Your task to perform on an android device: open app "Adobe Acrobat Reader" (install if not already installed) and go to login screen Image 0: 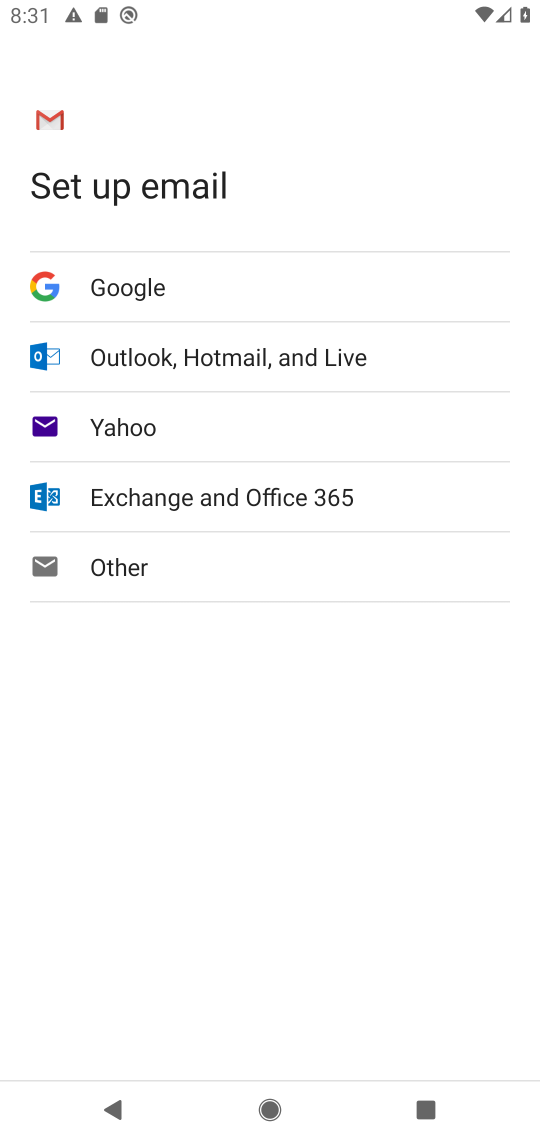
Step 0: press home button
Your task to perform on an android device: open app "Adobe Acrobat Reader" (install if not already installed) and go to login screen Image 1: 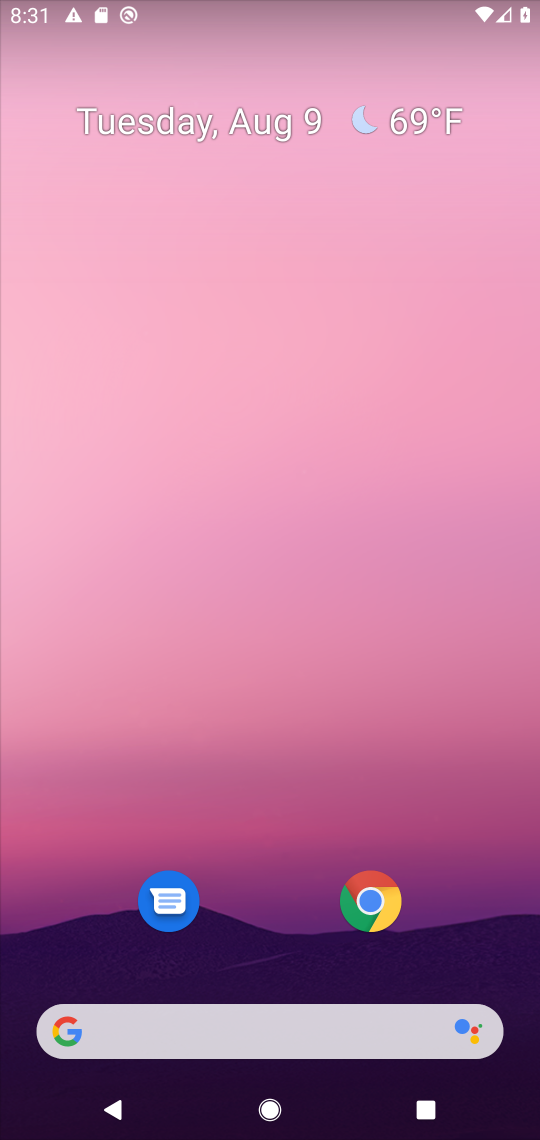
Step 1: drag from (283, 961) to (338, 142)
Your task to perform on an android device: open app "Adobe Acrobat Reader" (install if not already installed) and go to login screen Image 2: 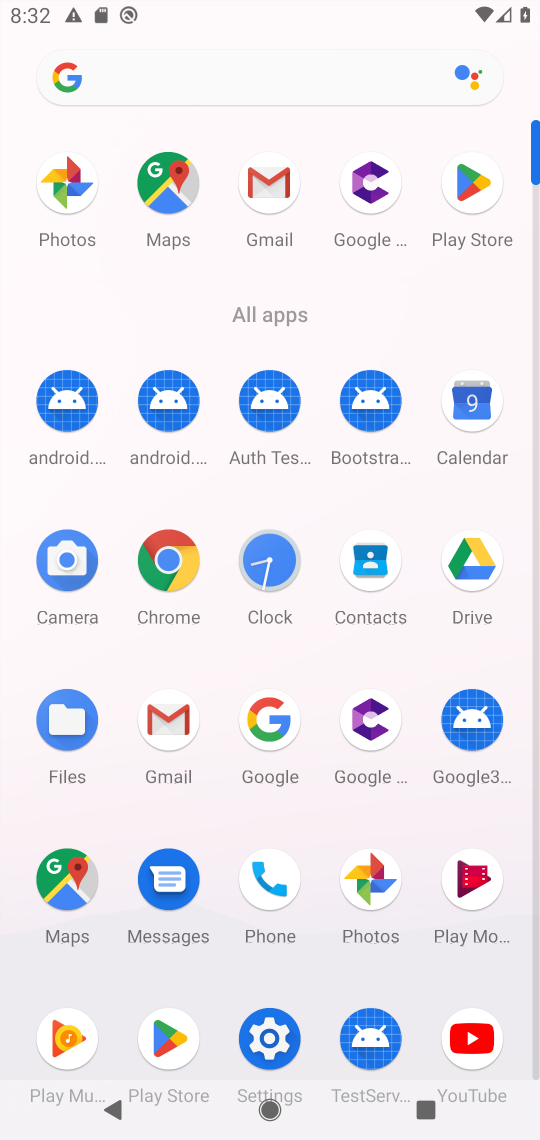
Step 2: click (168, 1032)
Your task to perform on an android device: open app "Adobe Acrobat Reader" (install if not already installed) and go to login screen Image 3: 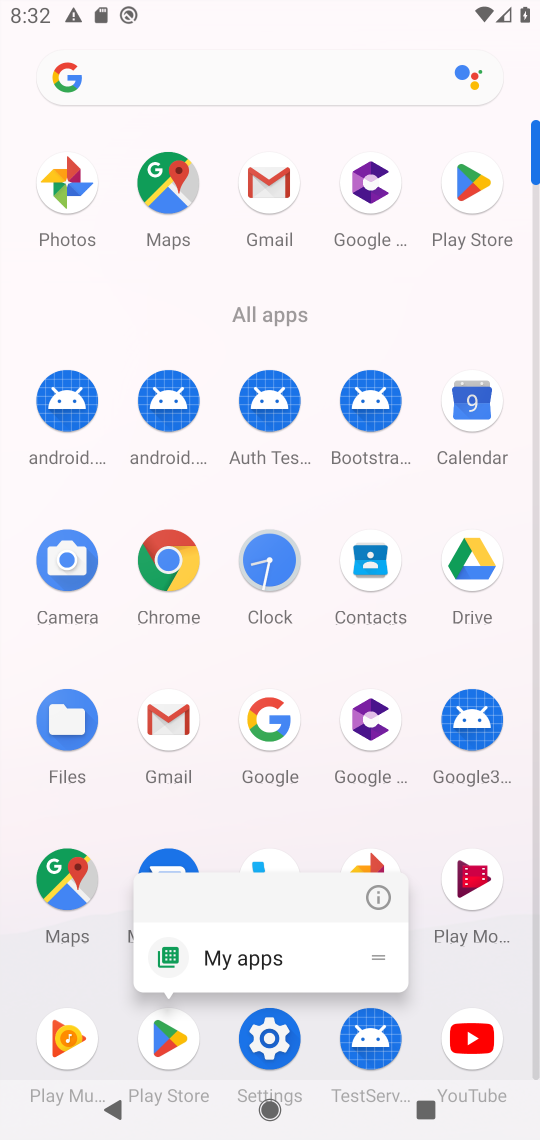
Step 3: click (168, 1032)
Your task to perform on an android device: open app "Adobe Acrobat Reader" (install if not already installed) and go to login screen Image 4: 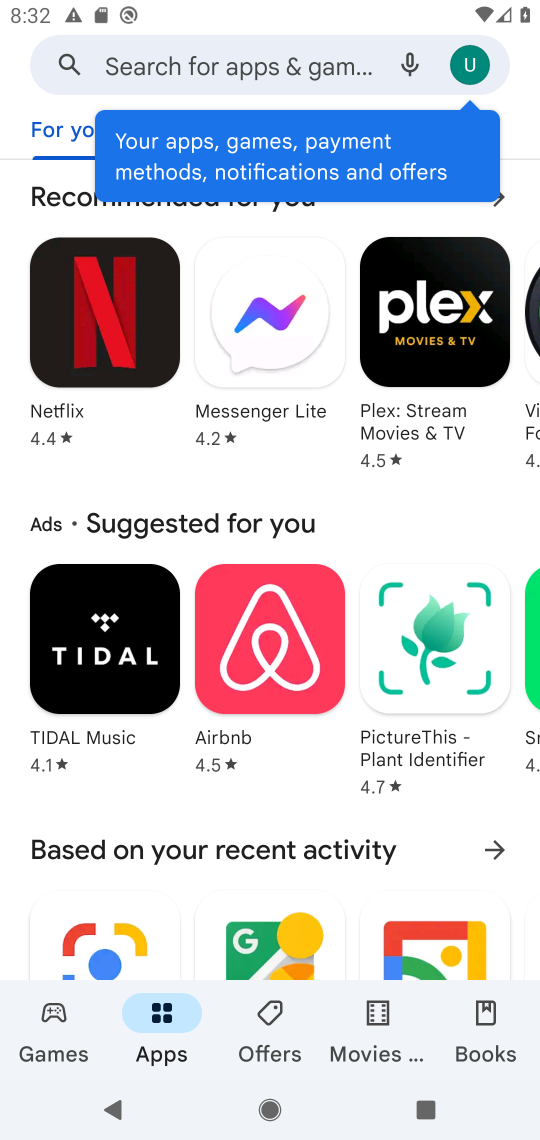
Step 4: click (300, 48)
Your task to perform on an android device: open app "Adobe Acrobat Reader" (install if not already installed) and go to login screen Image 5: 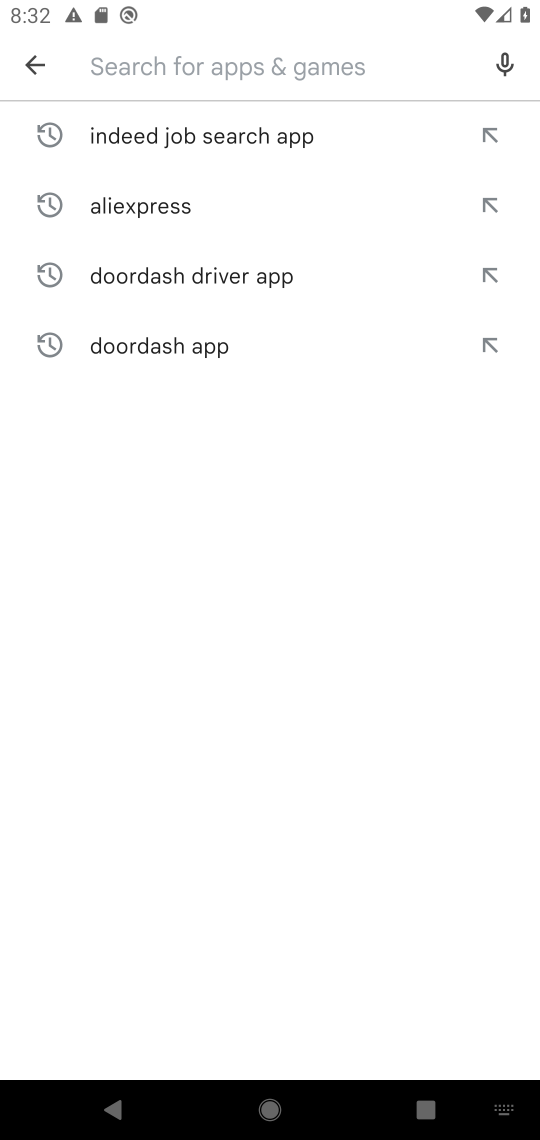
Step 5: type "Adobe Acrobat Reader "
Your task to perform on an android device: open app "Adobe Acrobat Reader" (install if not already installed) and go to login screen Image 6: 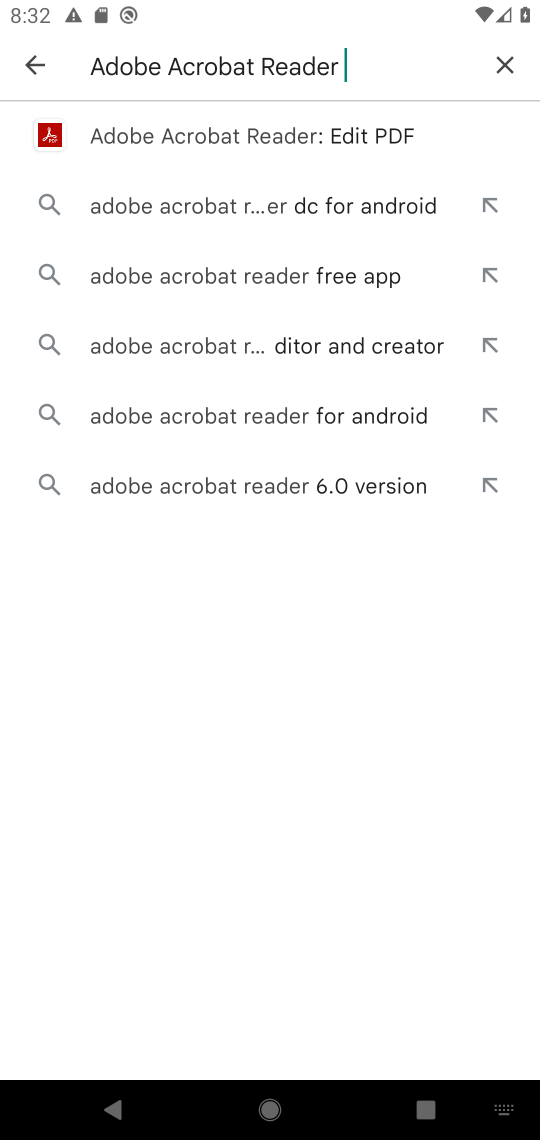
Step 6: click (209, 121)
Your task to perform on an android device: open app "Adobe Acrobat Reader" (install if not already installed) and go to login screen Image 7: 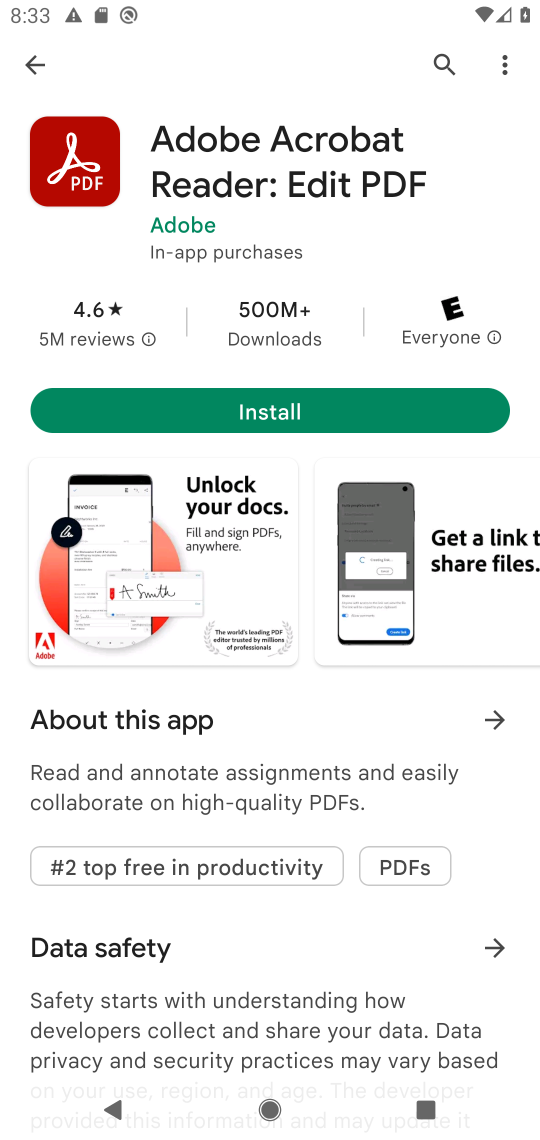
Step 7: click (191, 398)
Your task to perform on an android device: open app "Adobe Acrobat Reader" (install if not already installed) and go to login screen Image 8: 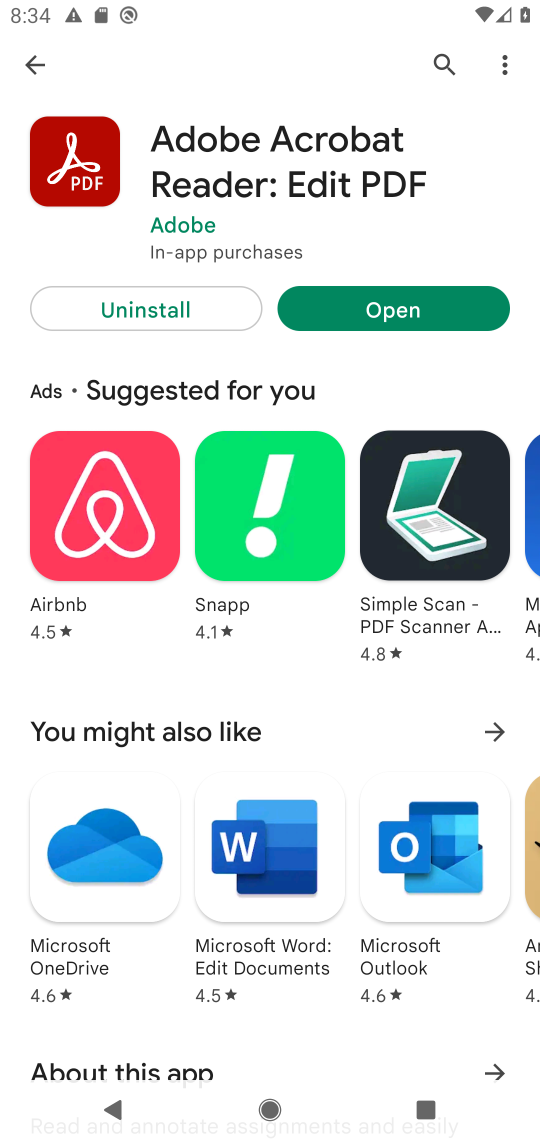
Step 8: click (418, 313)
Your task to perform on an android device: open app "Adobe Acrobat Reader" (install if not already installed) and go to login screen Image 9: 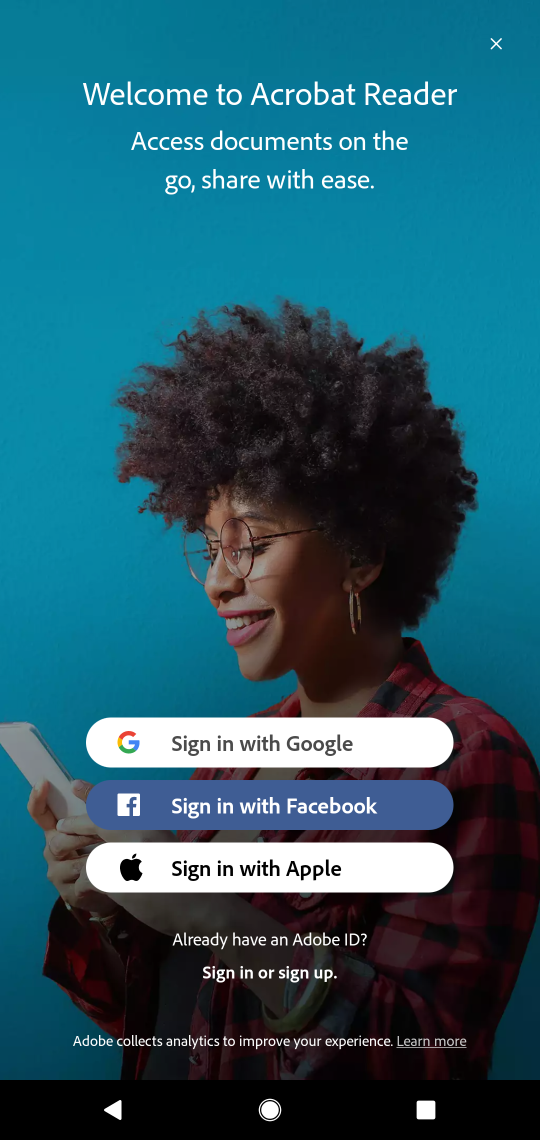
Step 9: click (275, 730)
Your task to perform on an android device: open app "Adobe Acrobat Reader" (install if not already installed) and go to login screen Image 10: 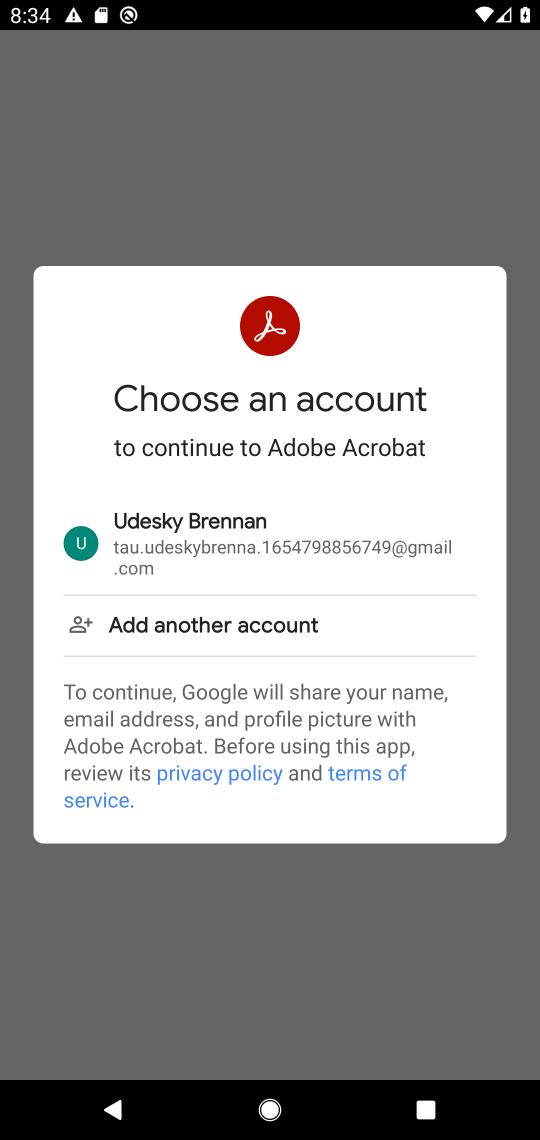
Step 10: click (229, 545)
Your task to perform on an android device: open app "Adobe Acrobat Reader" (install if not already installed) and go to login screen Image 11: 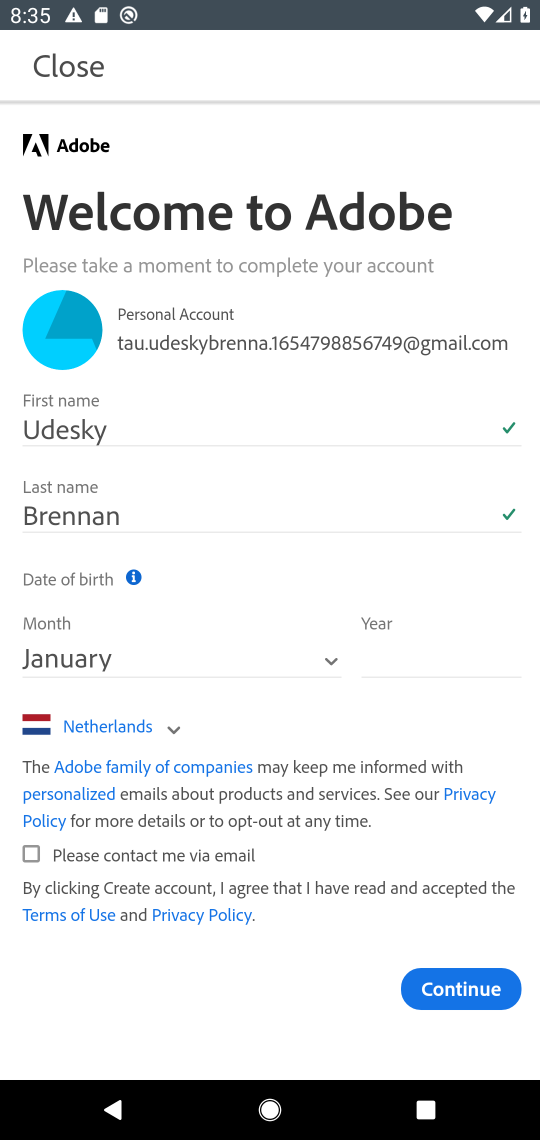
Step 11: click (455, 985)
Your task to perform on an android device: open app "Adobe Acrobat Reader" (install if not already installed) and go to login screen Image 12: 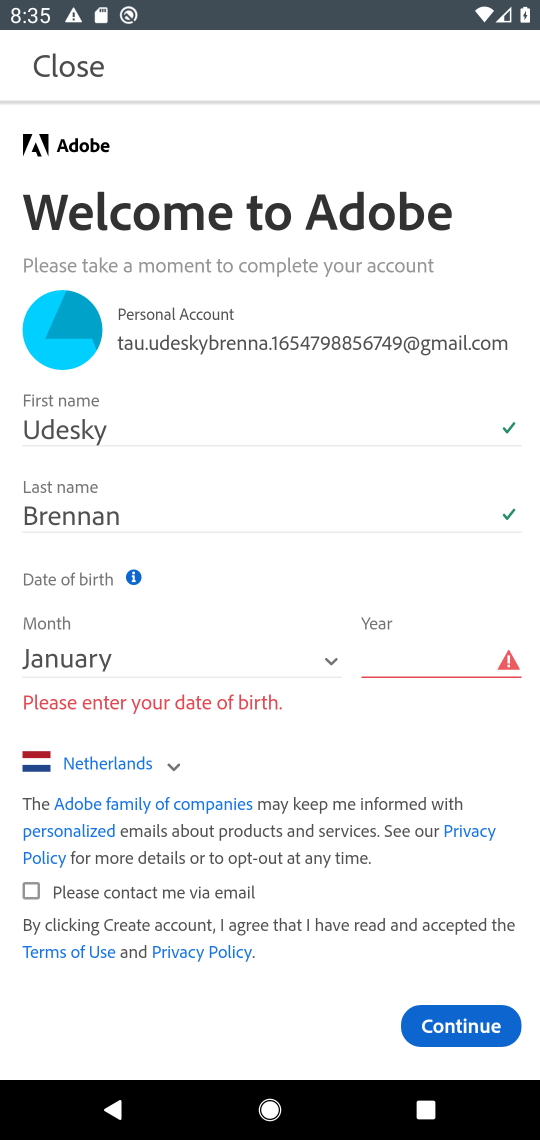
Step 12: click (458, 1029)
Your task to perform on an android device: open app "Adobe Acrobat Reader" (install if not already installed) and go to login screen Image 13: 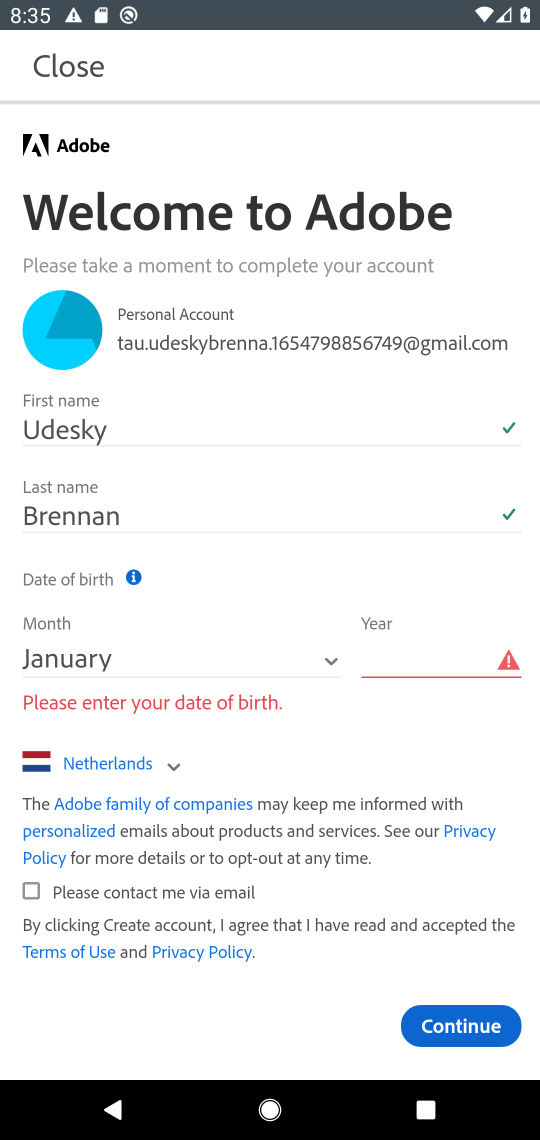
Step 13: click (458, 1029)
Your task to perform on an android device: open app "Adobe Acrobat Reader" (install if not already installed) and go to login screen Image 14: 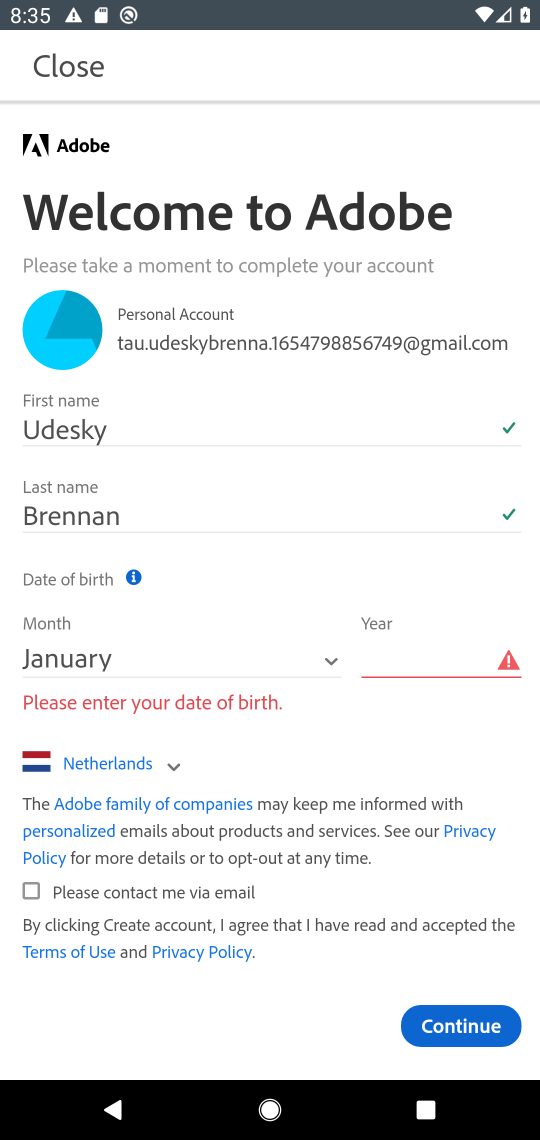
Step 14: click (458, 1026)
Your task to perform on an android device: open app "Adobe Acrobat Reader" (install if not already installed) and go to login screen Image 15: 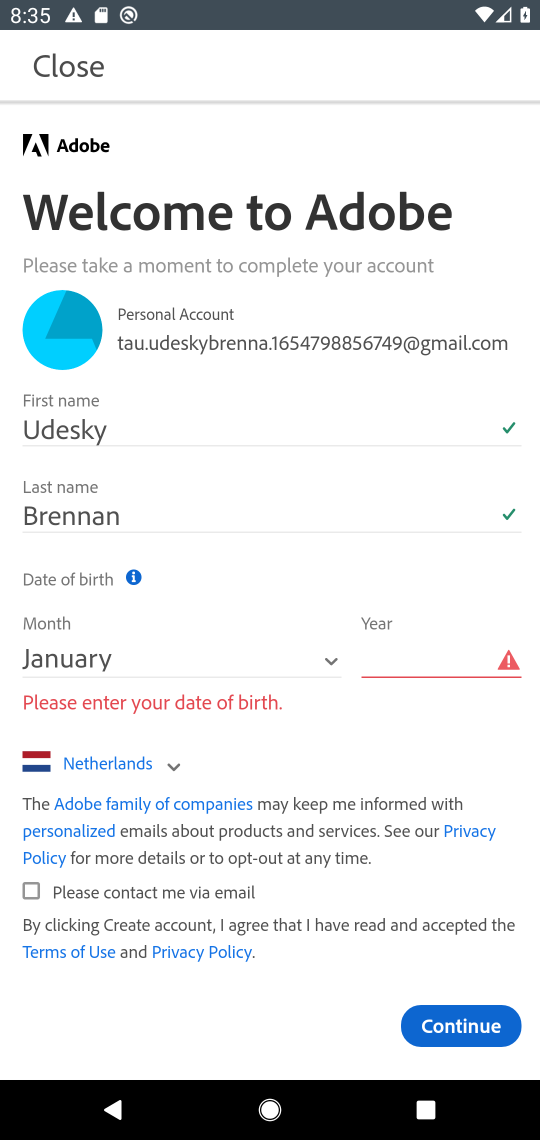
Step 15: click (458, 1026)
Your task to perform on an android device: open app "Adobe Acrobat Reader" (install if not already installed) and go to login screen Image 16: 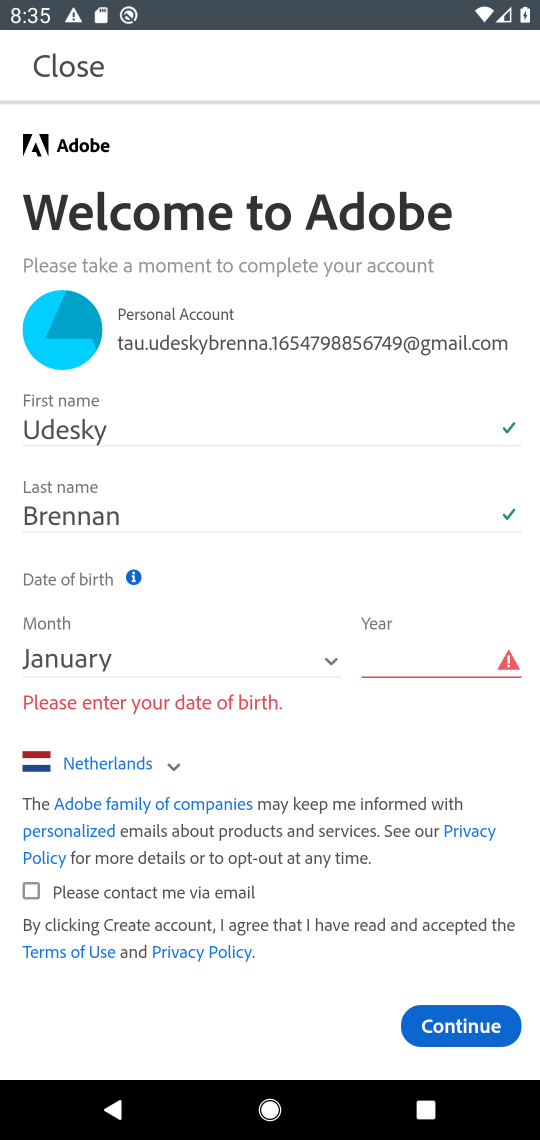
Step 16: click (24, 877)
Your task to perform on an android device: open app "Adobe Acrobat Reader" (install if not already installed) and go to login screen Image 17: 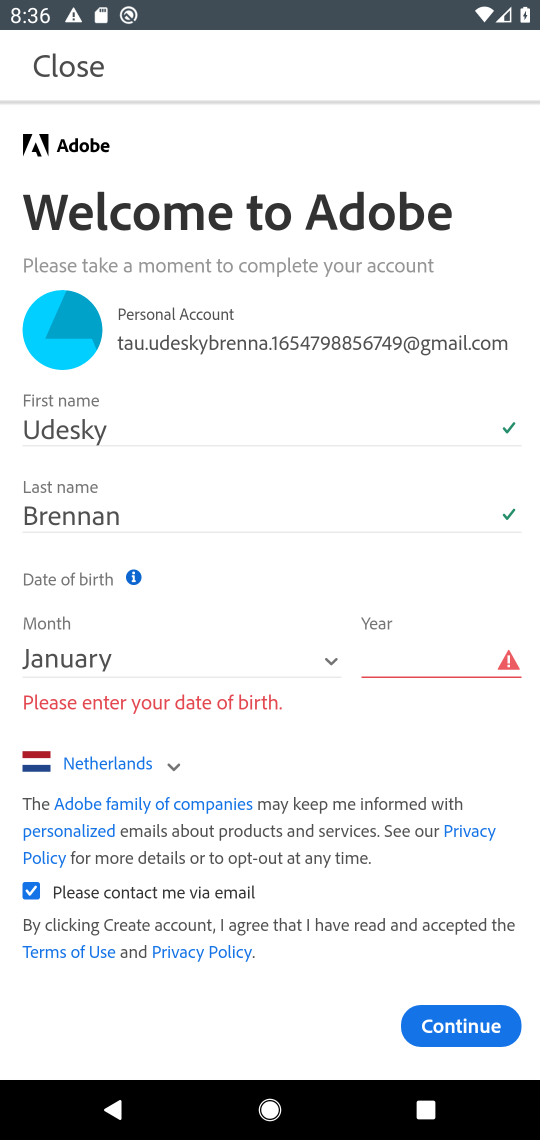
Step 17: click (437, 1012)
Your task to perform on an android device: open app "Adobe Acrobat Reader" (install if not already installed) and go to login screen Image 18: 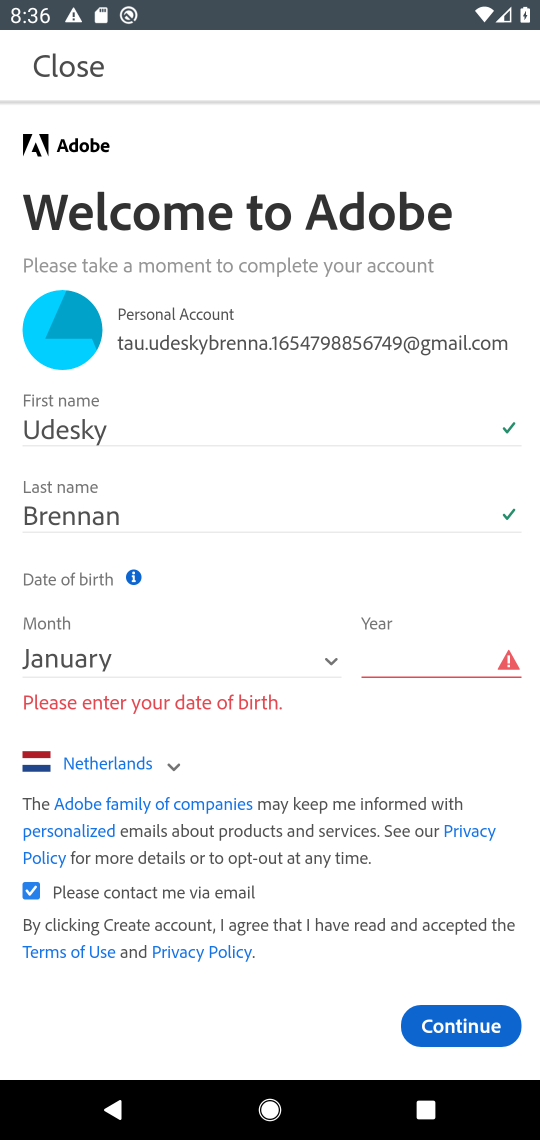
Step 18: click (461, 1021)
Your task to perform on an android device: open app "Adobe Acrobat Reader" (install if not already installed) and go to login screen Image 19: 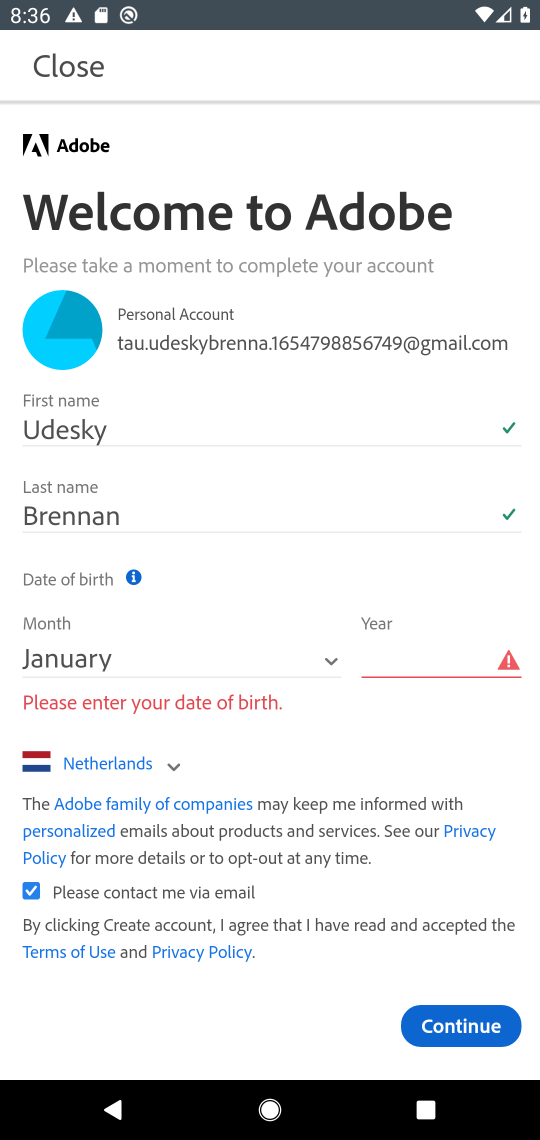
Step 19: click (453, 1013)
Your task to perform on an android device: open app "Adobe Acrobat Reader" (install if not already installed) and go to login screen Image 20: 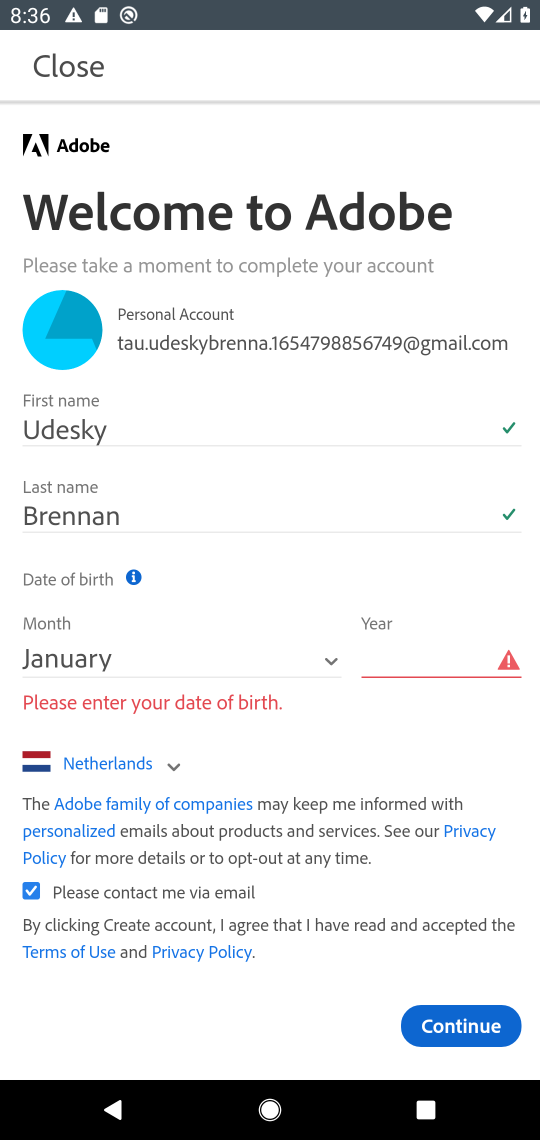
Step 20: click (453, 1013)
Your task to perform on an android device: open app "Adobe Acrobat Reader" (install if not already installed) and go to login screen Image 21: 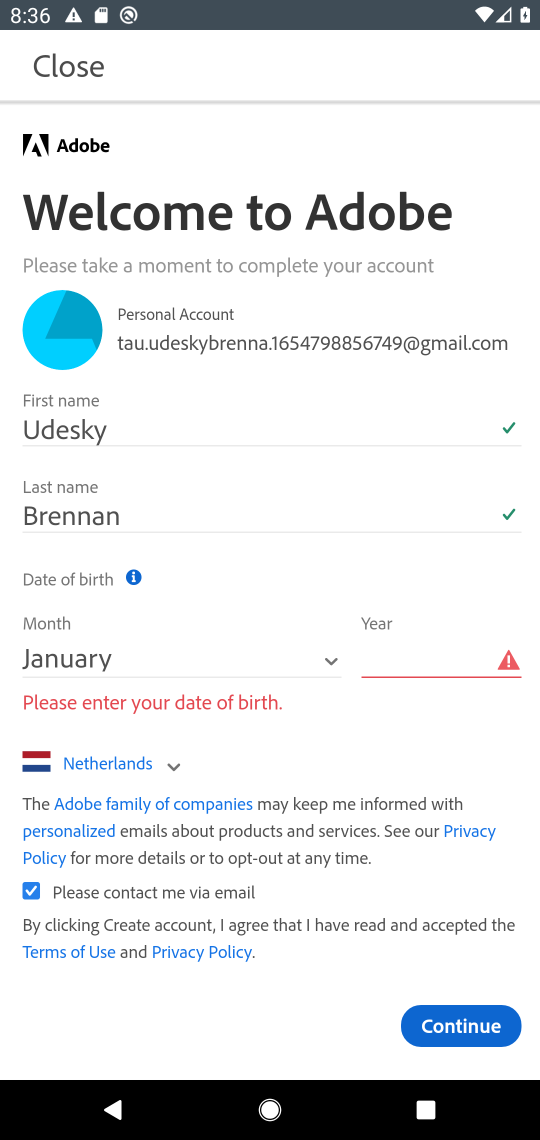
Step 21: click (453, 1013)
Your task to perform on an android device: open app "Adobe Acrobat Reader" (install if not already installed) and go to login screen Image 22: 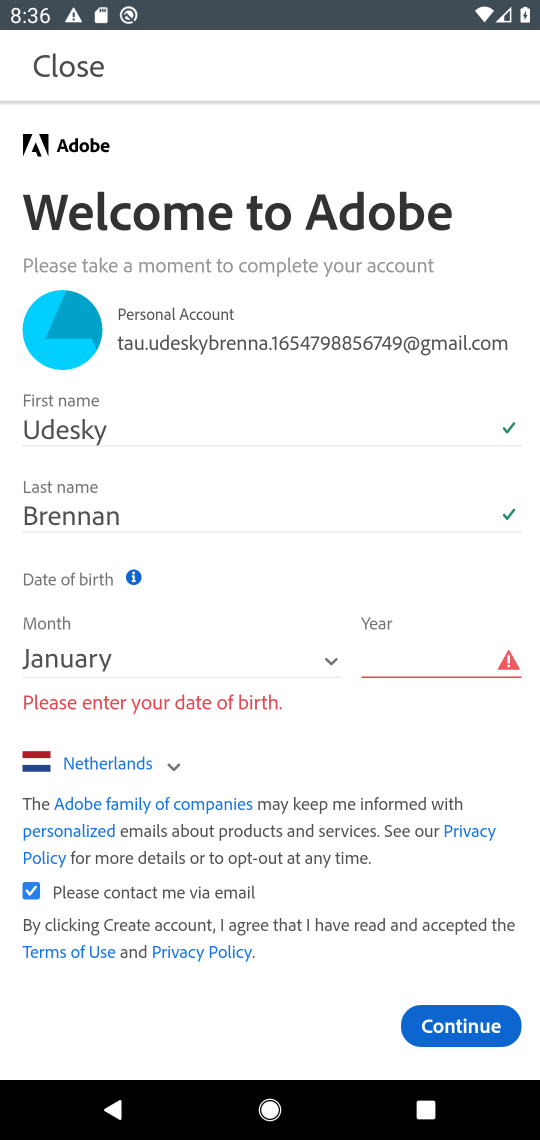
Step 22: click (453, 1013)
Your task to perform on an android device: open app "Adobe Acrobat Reader" (install if not already installed) and go to login screen Image 23: 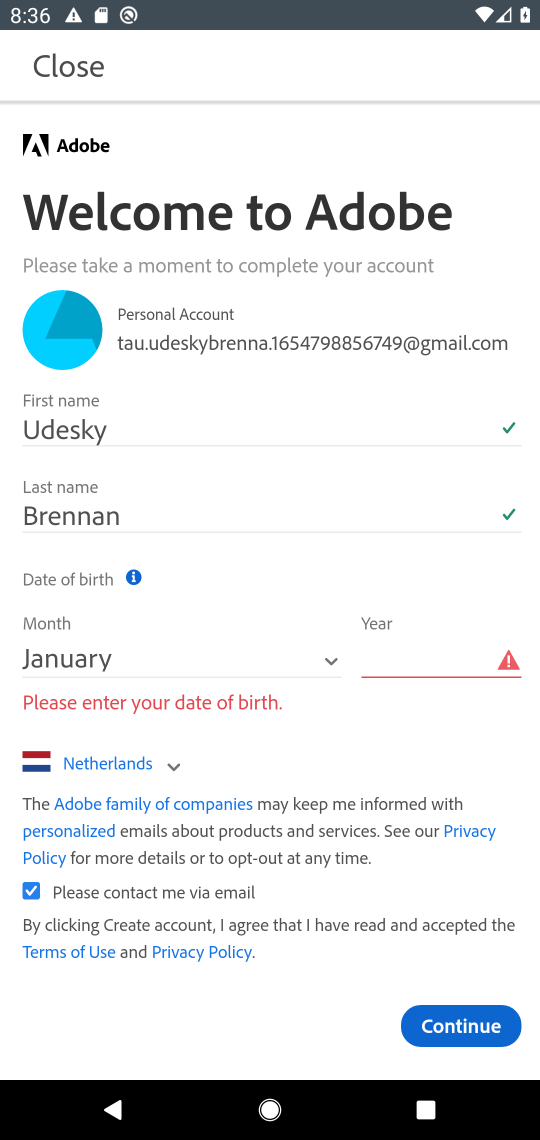
Step 23: click (453, 1013)
Your task to perform on an android device: open app "Adobe Acrobat Reader" (install if not already installed) and go to login screen Image 24: 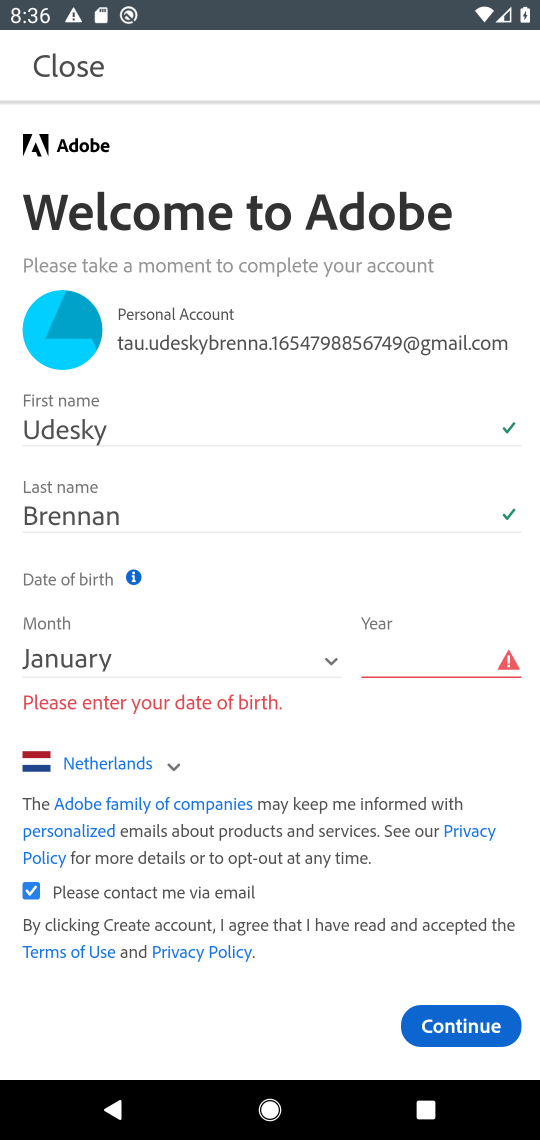
Step 24: task complete